Your task to perform on an android device: toggle notification dots Image 0: 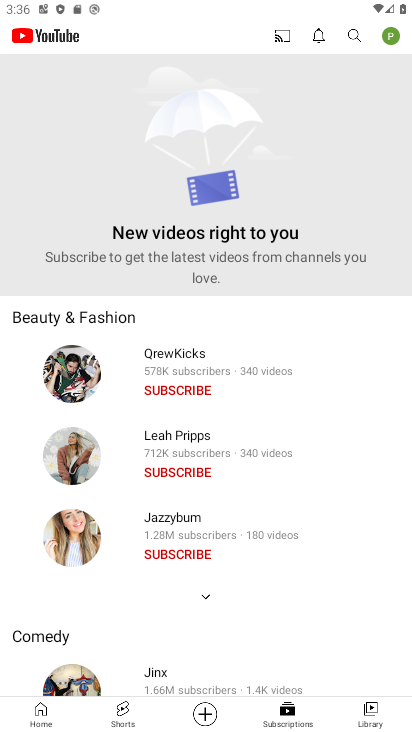
Step 0: press home button
Your task to perform on an android device: toggle notification dots Image 1: 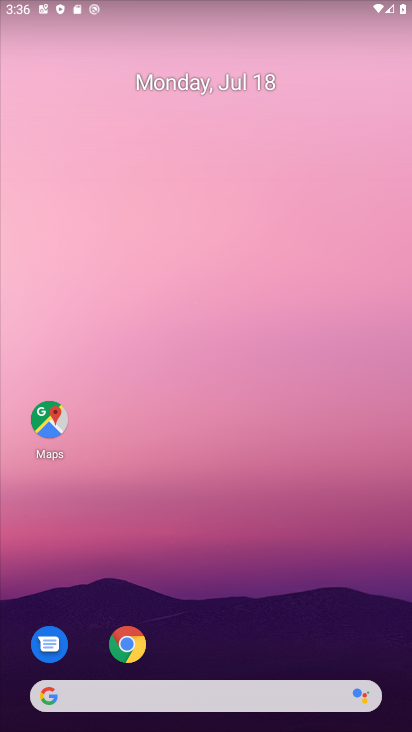
Step 1: drag from (361, 658) to (315, 26)
Your task to perform on an android device: toggle notification dots Image 2: 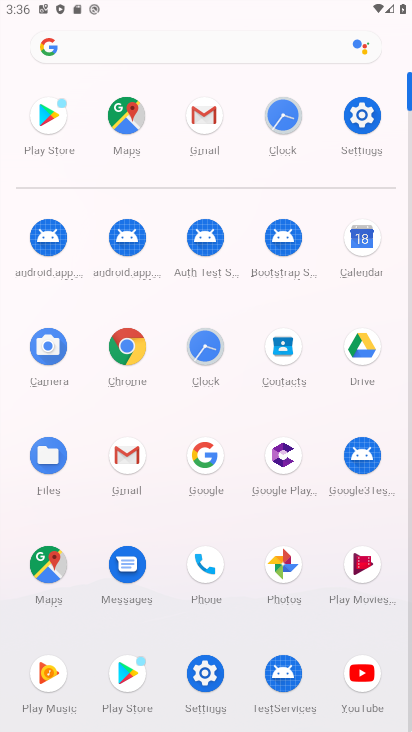
Step 2: click (204, 675)
Your task to perform on an android device: toggle notification dots Image 3: 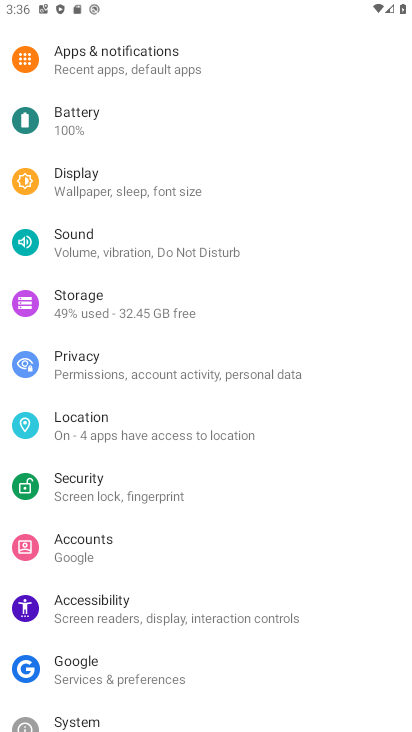
Step 3: drag from (337, 172) to (313, 412)
Your task to perform on an android device: toggle notification dots Image 4: 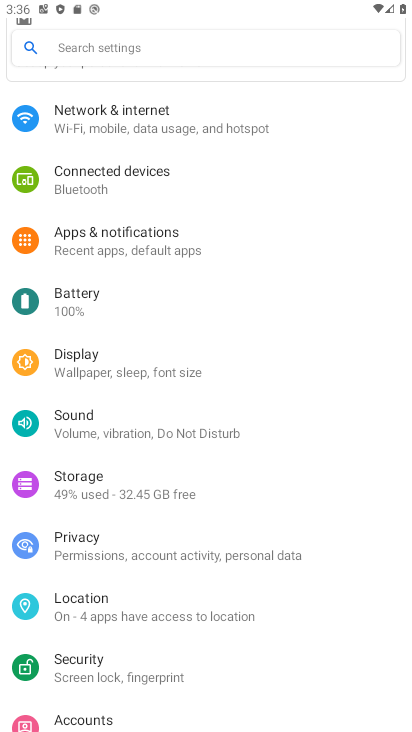
Step 4: click (103, 232)
Your task to perform on an android device: toggle notification dots Image 5: 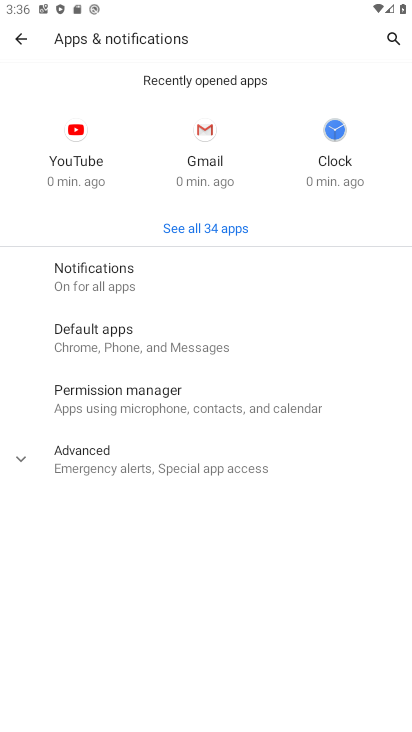
Step 5: click (93, 271)
Your task to perform on an android device: toggle notification dots Image 6: 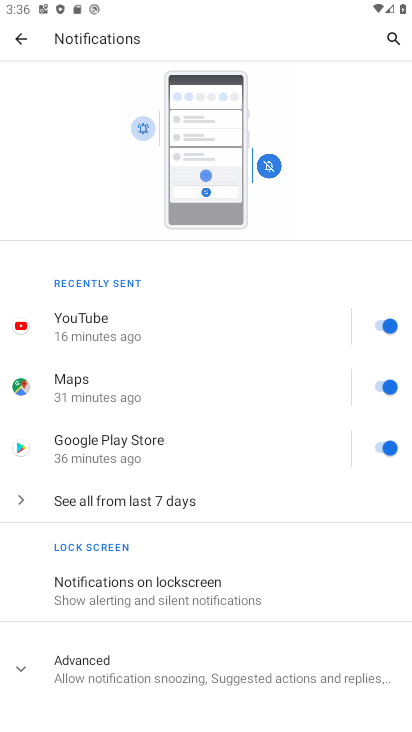
Step 6: click (18, 665)
Your task to perform on an android device: toggle notification dots Image 7: 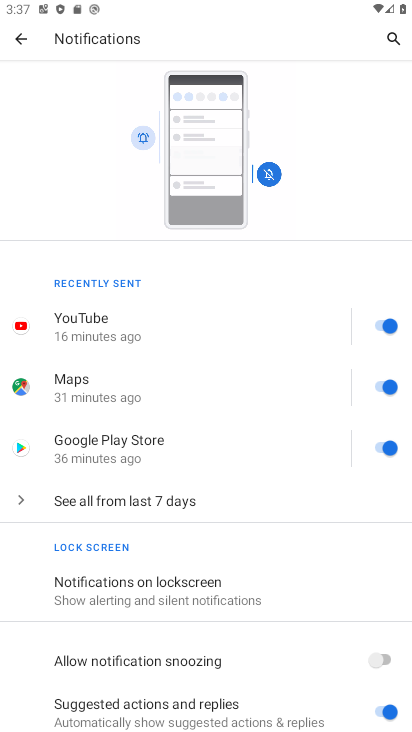
Step 7: drag from (322, 669) to (276, 255)
Your task to perform on an android device: toggle notification dots Image 8: 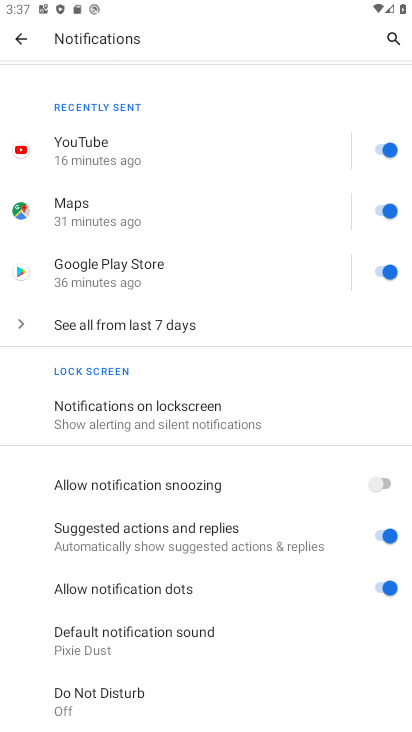
Step 8: click (378, 588)
Your task to perform on an android device: toggle notification dots Image 9: 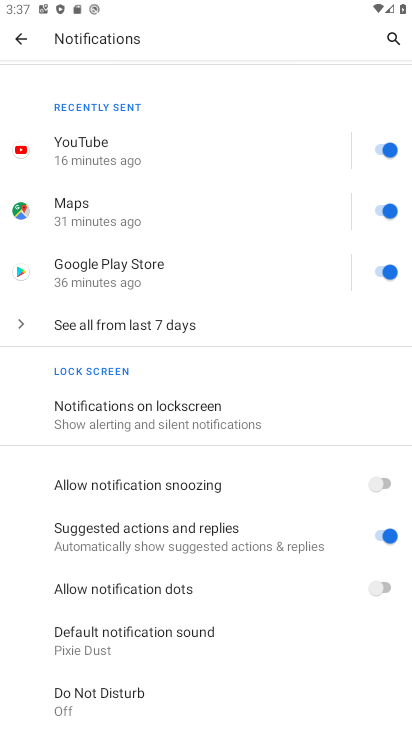
Step 9: task complete